Your task to perform on an android device: change notifications settings Image 0: 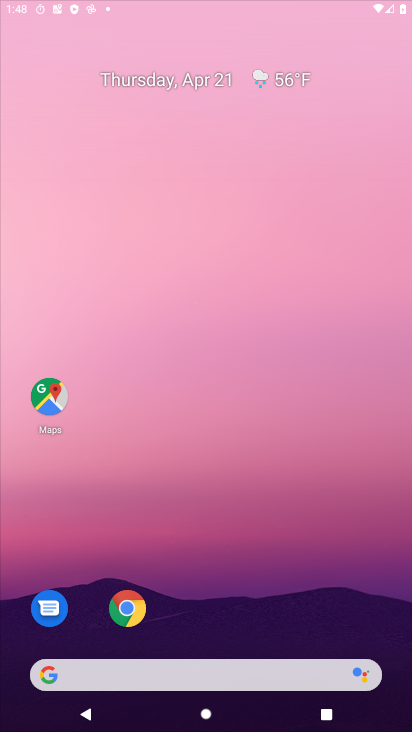
Step 0: drag from (273, 474) to (244, 50)
Your task to perform on an android device: change notifications settings Image 1: 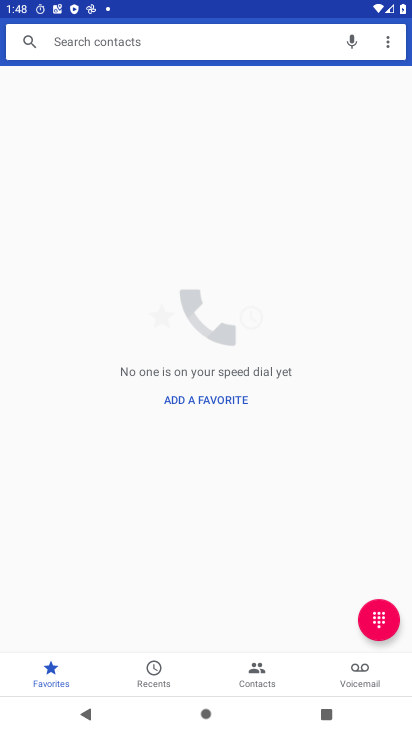
Step 1: press home button
Your task to perform on an android device: change notifications settings Image 2: 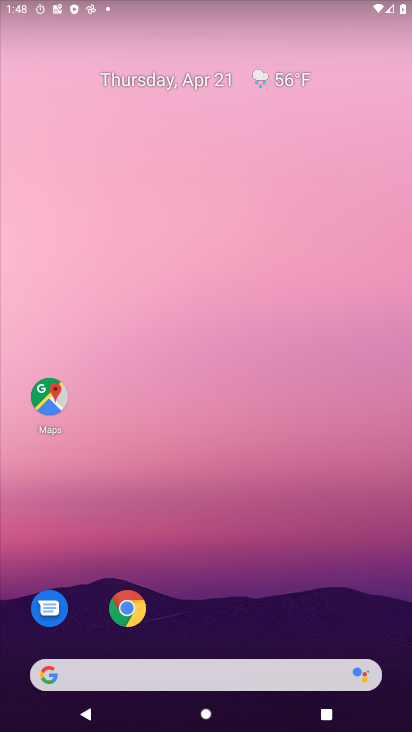
Step 2: drag from (249, 584) to (263, 121)
Your task to perform on an android device: change notifications settings Image 3: 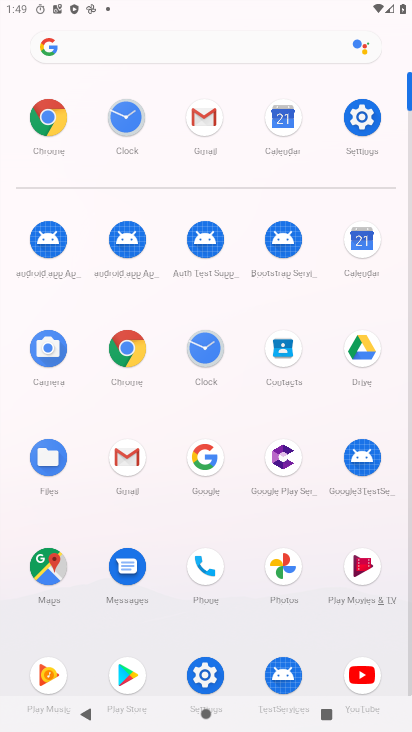
Step 3: click (364, 120)
Your task to perform on an android device: change notifications settings Image 4: 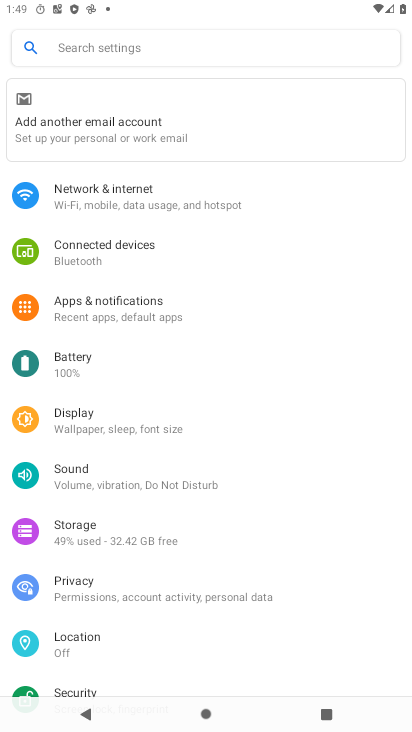
Step 4: click (144, 317)
Your task to perform on an android device: change notifications settings Image 5: 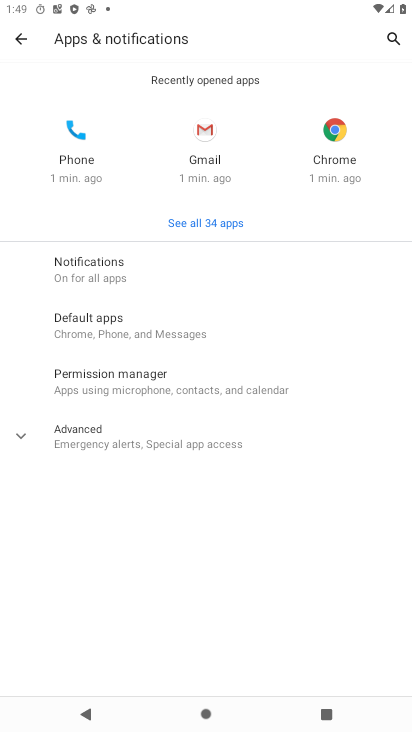
Step 5: click (125, 275)
Your task to perform on an android device: change notifications settings Image 6: 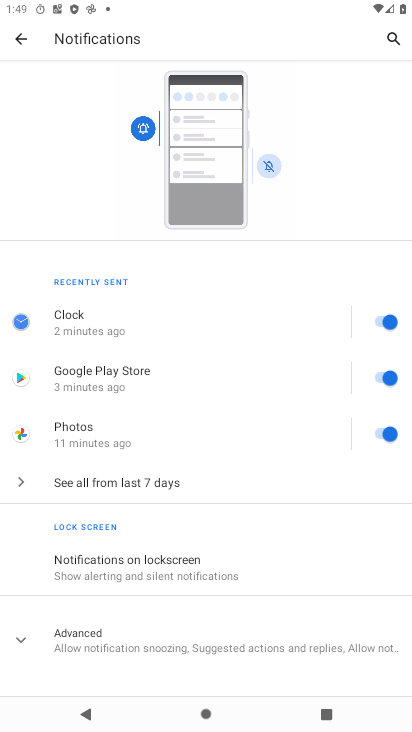
Step 6: click (376, 319)
Your task to perform on an android device: change notifications settings Image 7: 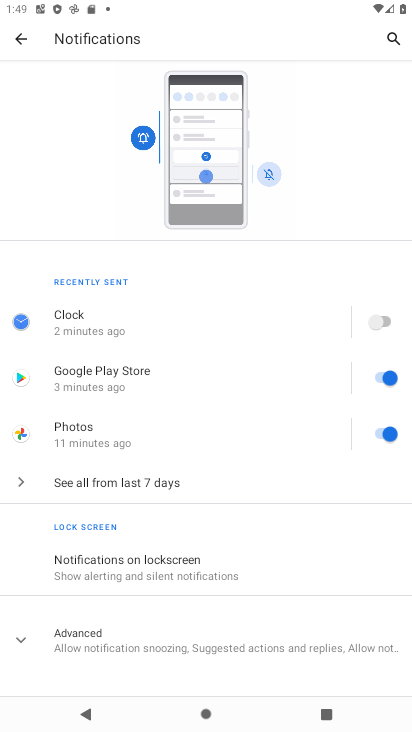
Step 7: task complete